Your task to perform on an android device: delete a single message in the gmail app Image 0: 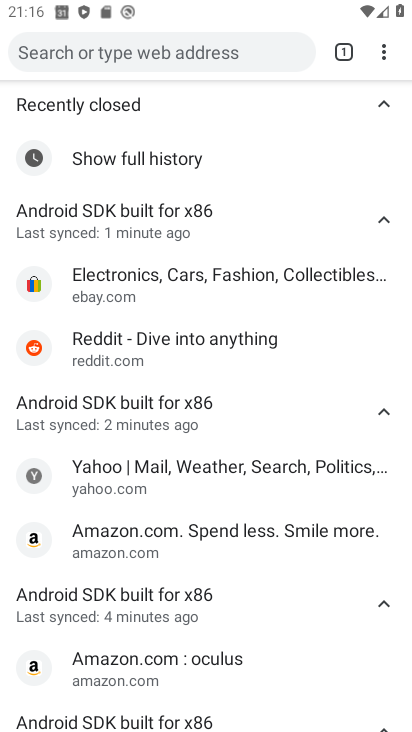
Step 0: press home button
Your task to perform on an android device: delete a single message in the gmail app Image 1: 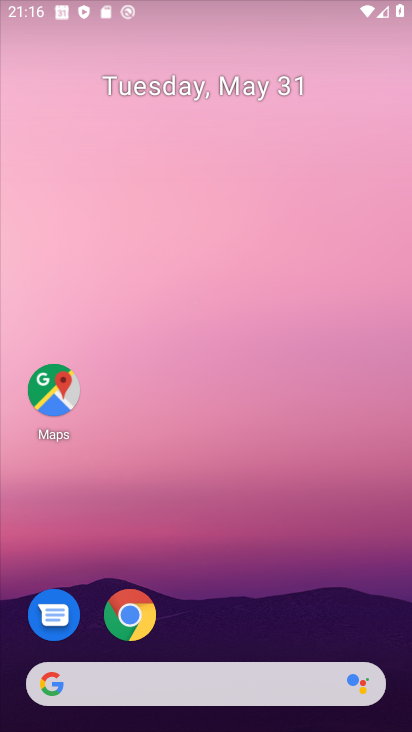
Step 1: drag from (319, 636) to (299, 142)
Your task to perform on an android device: delete a single message in the gmail app Image 2: 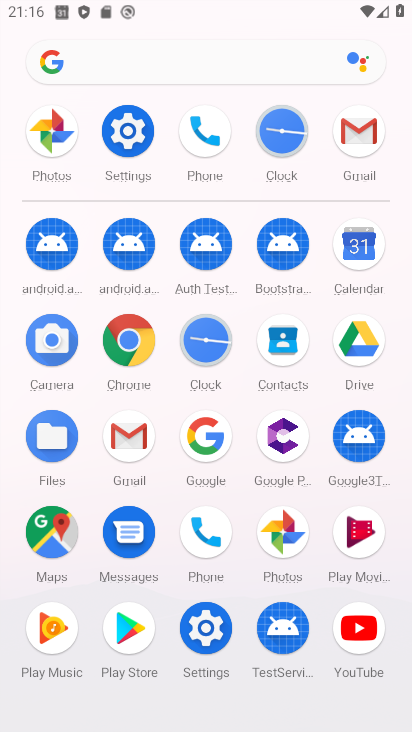
Step 2: click (362, 137)
Your task to perform on an android device: delete a single message in the gmail app Image 3: 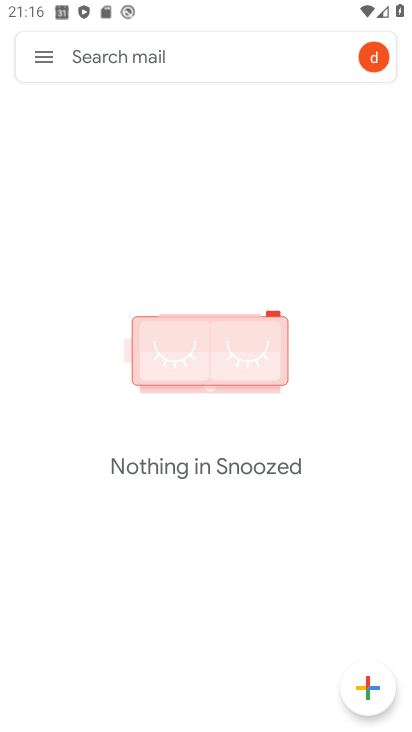
Step 3: click (41, 53)
Your task to perform on an android device: delete a single message in the gmail app Image 4: 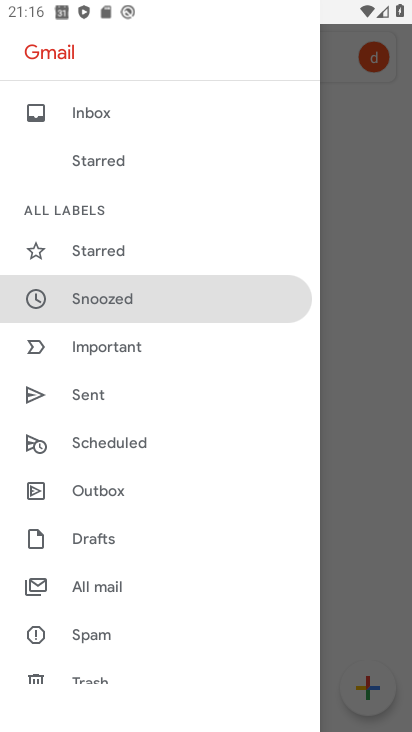
Step 4: click (108, 585)
Your task to perform on an android device: delete a single message in the gmail app Image 5: 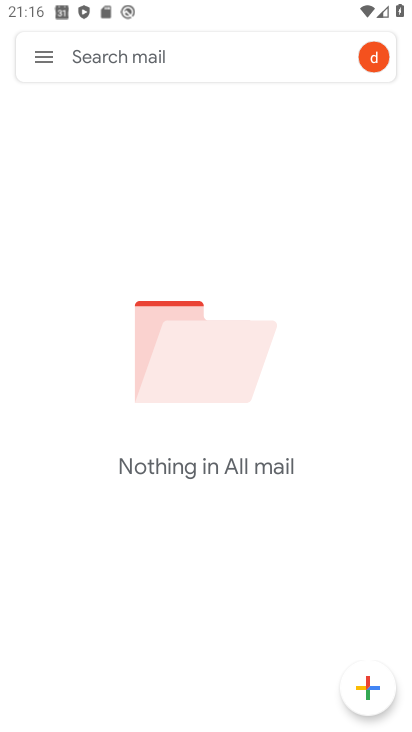
Step 5: task complete